Your task to perform on an android device: Go to Google Image 0: 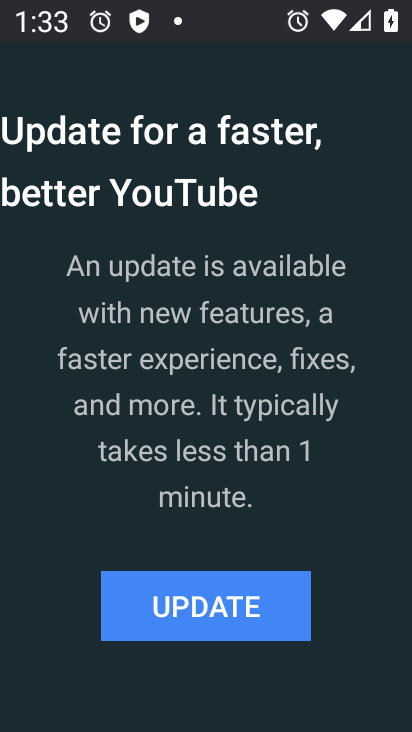
Step 0: press home button
Your task to perform on an android device: Go to Google Image 1: 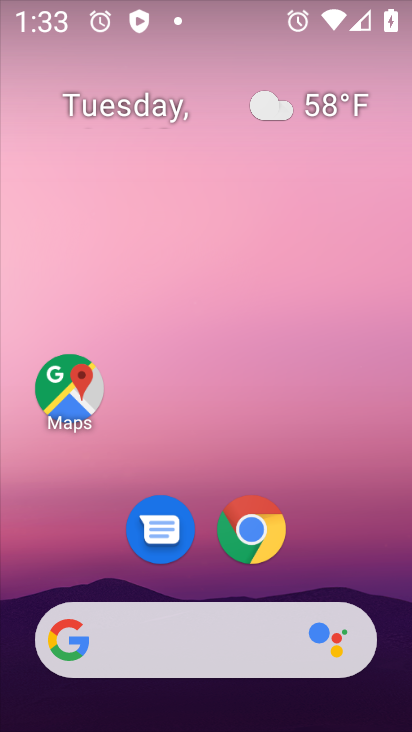
Step 1: drag from (287, 643) to (307, 94)
Your task to perform on an android device: Go to Google Image 2: 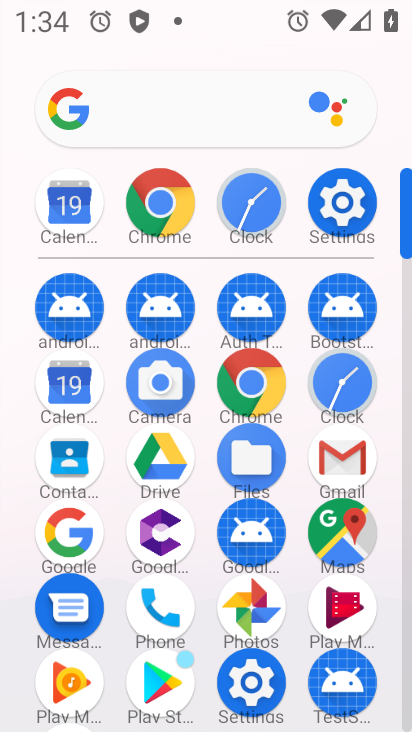
Step 2: click (405, 433)
Your task to perform on an android device: Go to Google Image 3: 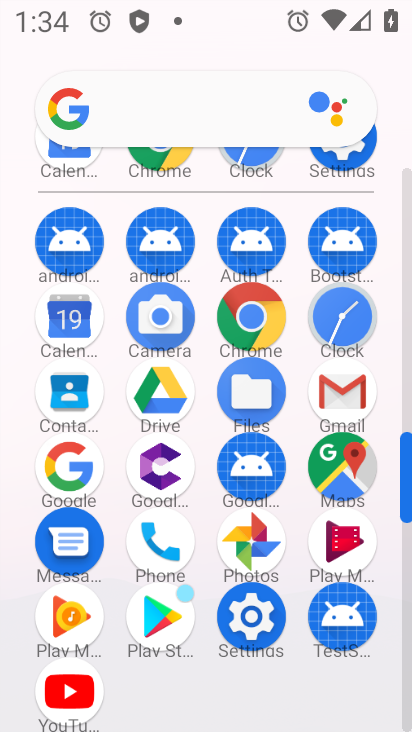
Step 3: click (70, 475)
Your task to perform on an android device: Go to Google Image 4: 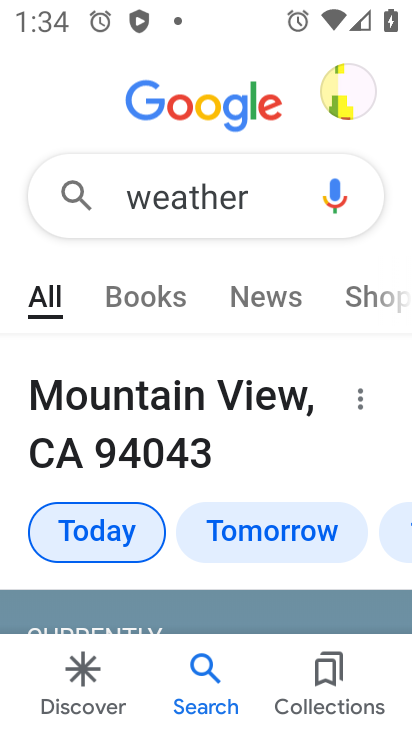
Step 4: click (355, 105)
Your task to perform on an android device: Go to Google Image 5: 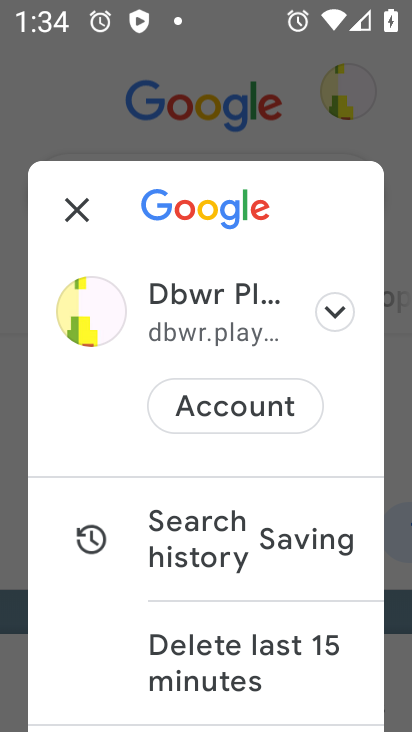
Step 5: task complete